Your task to perform on an android device: Go to Maps Image 0: 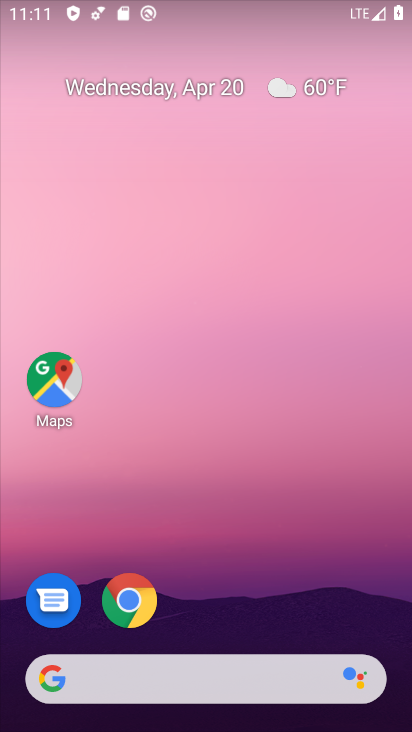
Step 0: drag from (281, 524) to (411, 235)
Your task to perform on an android device: Go to Maps Image 1: 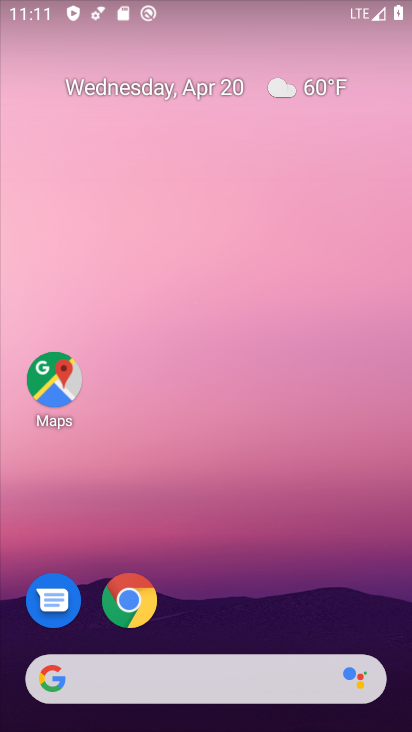
Step 1: drag from (333, 602) to (383, 43)
Your task to perform on an android device: Go to Maps Image 2: 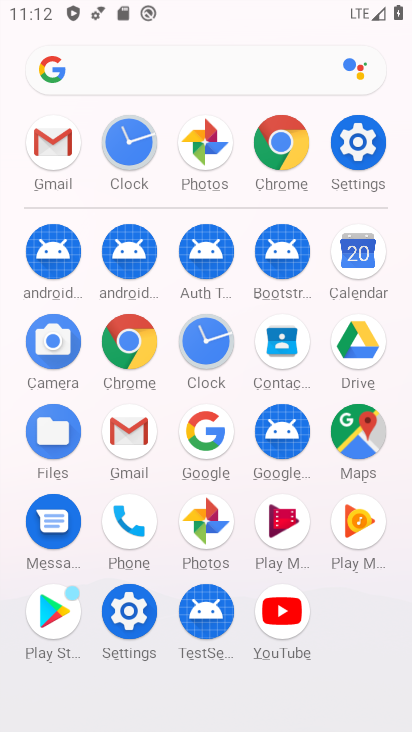
Step 2: click (367, 416)
Your task to perform on an android device: Go to Maps Image 3: 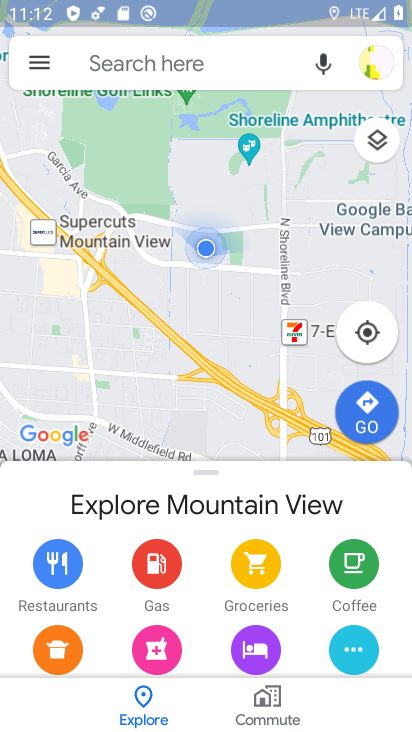
Step 3: task complete